Your task to perform on an android device: toggle priority inbox in the gmail app Image 0: 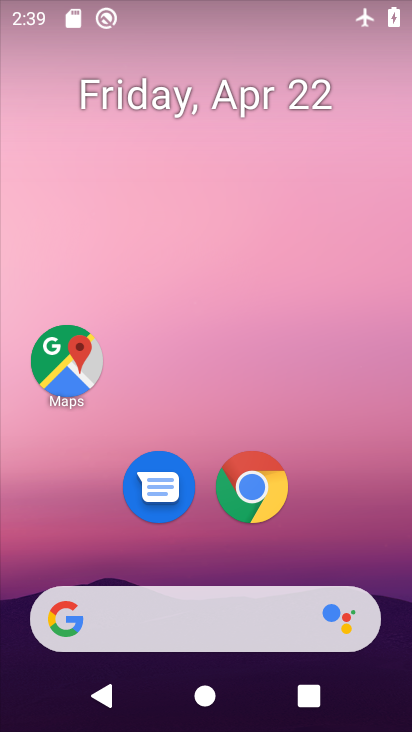
Step 0: drag from (334, 523) to (323, 229)
Your task to perform on an android device: toggle priority inbox in the gmail app Image 1: 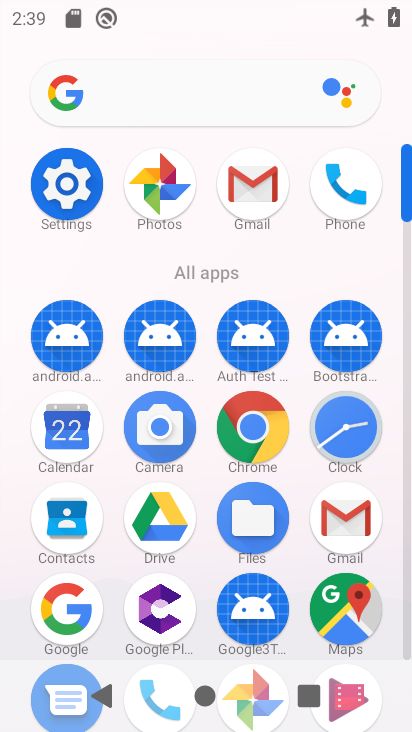
Step 1: click (246, 212)
Your task to perform on an android device: toggle priority inbox in the gmail app Image 2: 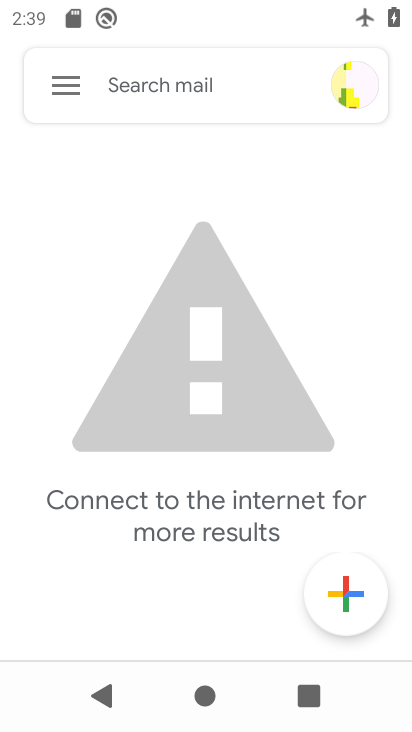
Step 2: click (79, 88)
Your task to perform on an android device: toggle priority inbox in the gmail app Image 3: 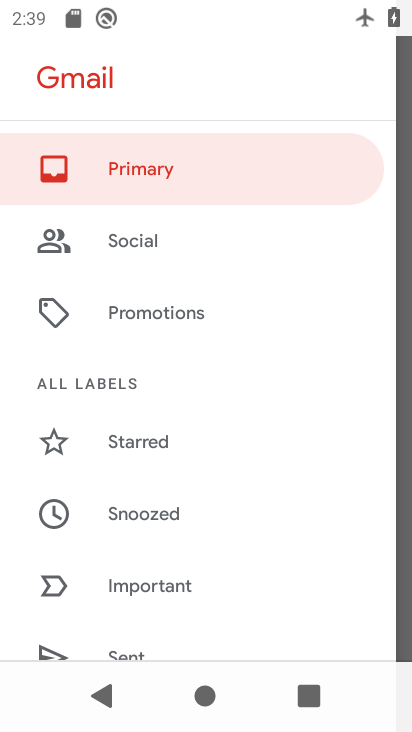
Step 3: drag from (147, 576) to (132, 214)
Your task to perform on an android device: toggle priority inbox in the gmail app Image 4: 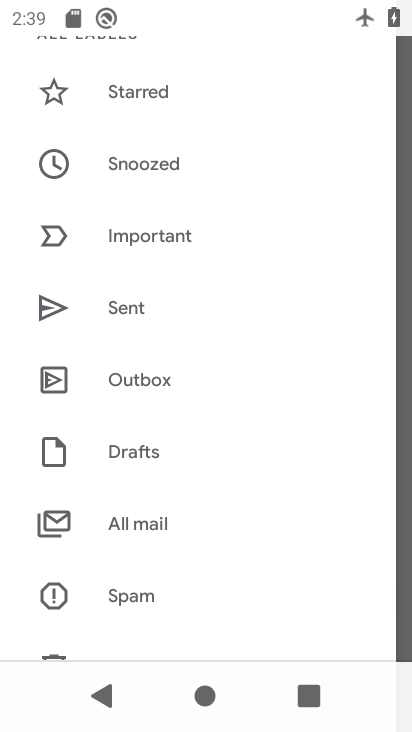
Step 4: drag from (159, 576) to (176, 166)
Your task to perform on an android device: toggle priority inbox in the gmail app Image 5: 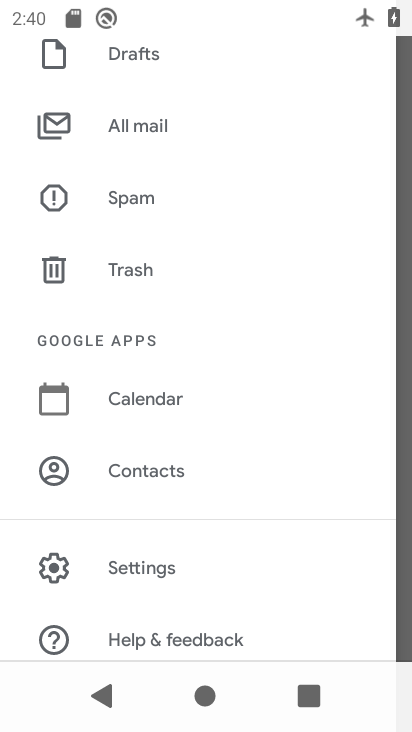
Step 5: click (166, 569)
Your task to perform on an android device: toggle priority inbox in the gmail app Image 6: 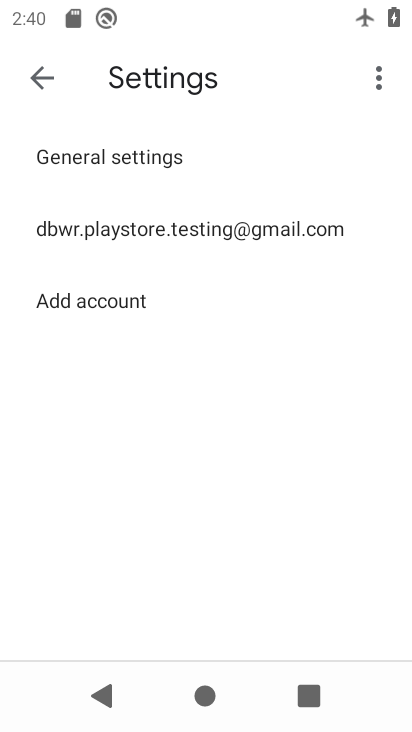
Step 6: click (156, 225)
Your task to perform on an android device: toggle priority inbox in the gmail app Image 7: 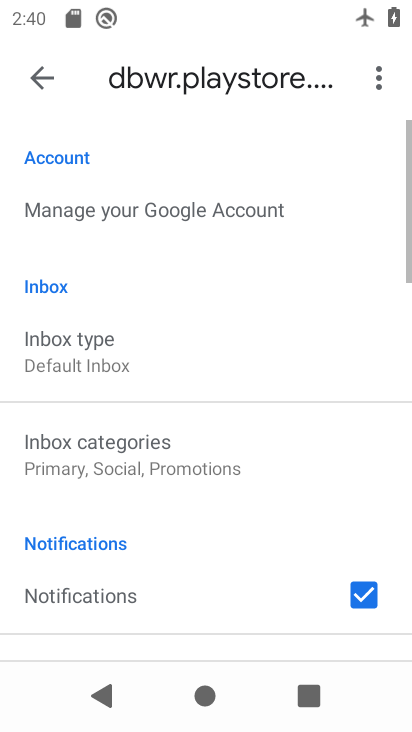
Step 7: click (156, 370)
Your task to perform on an android device: toggle priority inbox in the gmail app Image 8: 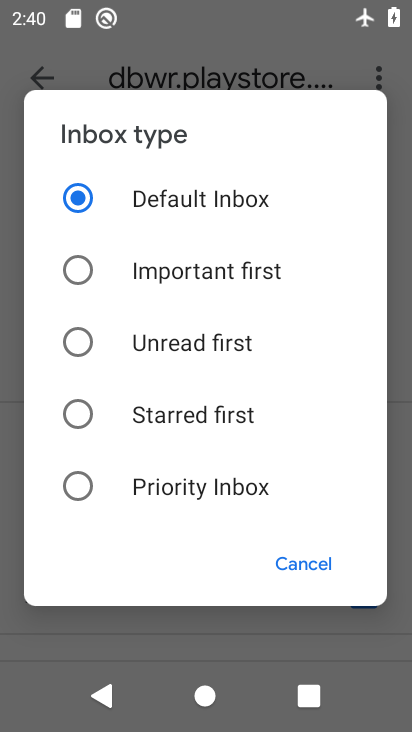
Step 8: click (179, 489)
Your task to perform on an android device: toggle priority inbox in the gmail app Image 9: 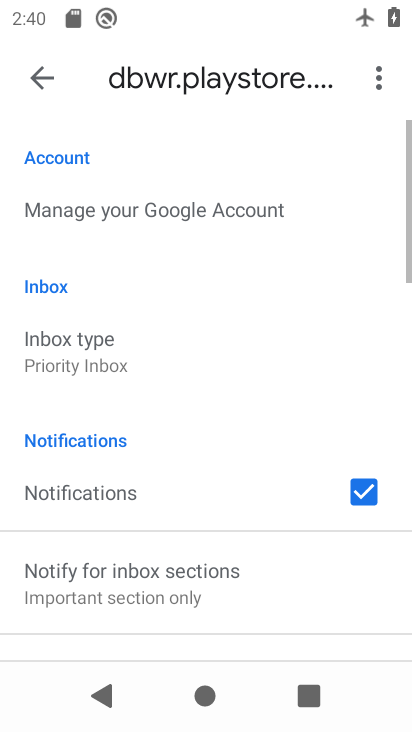
Step 9: task complete